Your task to perform on an android device: How do I get to the nearest Verizon Store? Image 0: 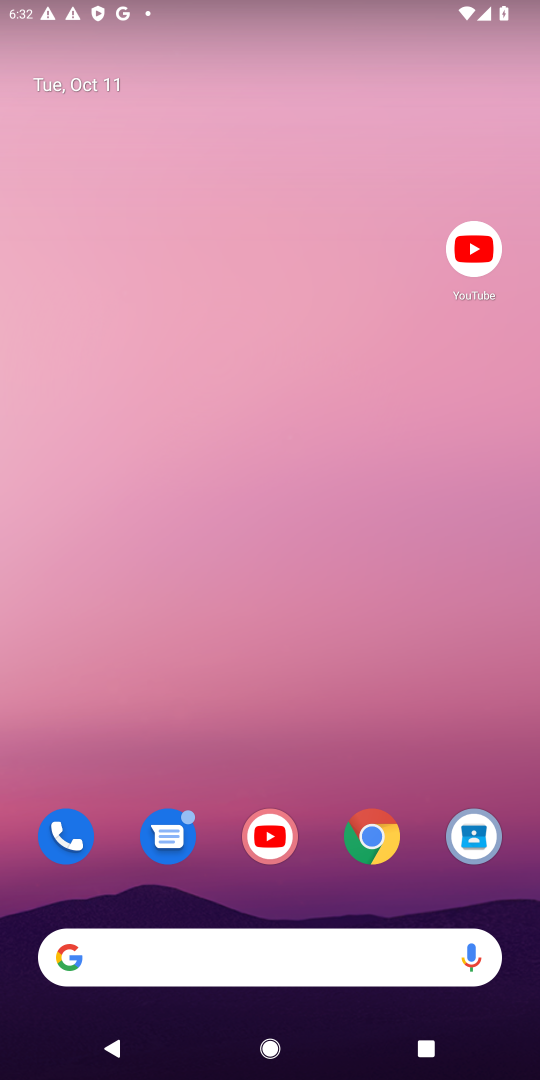
Step 0: click (374, 838)
Your task to perform on an android device: How do I get to the nearest Verizon Store? Image 1: 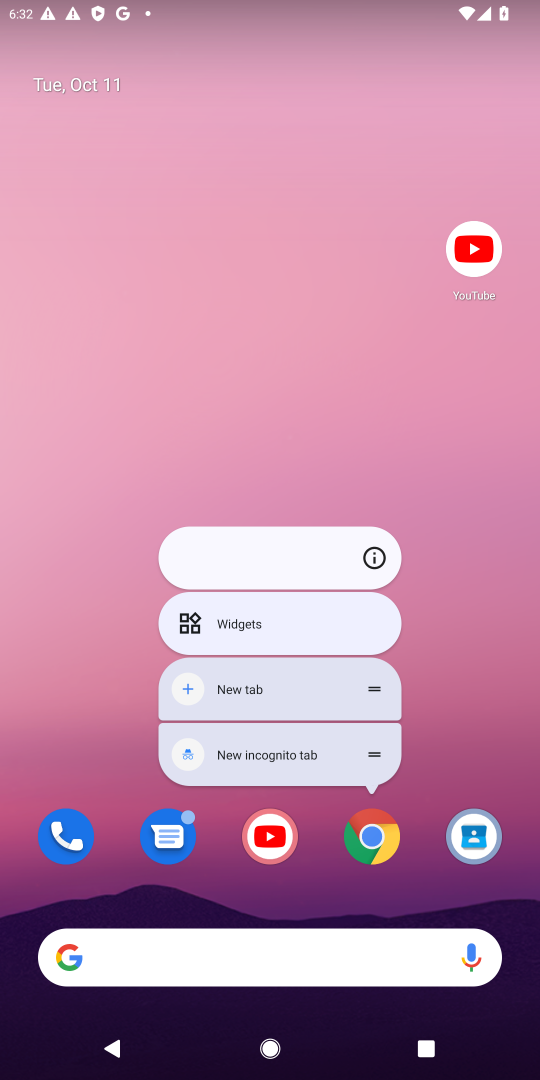
Step 1: click (369, 846)
Your task to perform on an android device: How do I get to the nearest Verizon Store? Image 2: 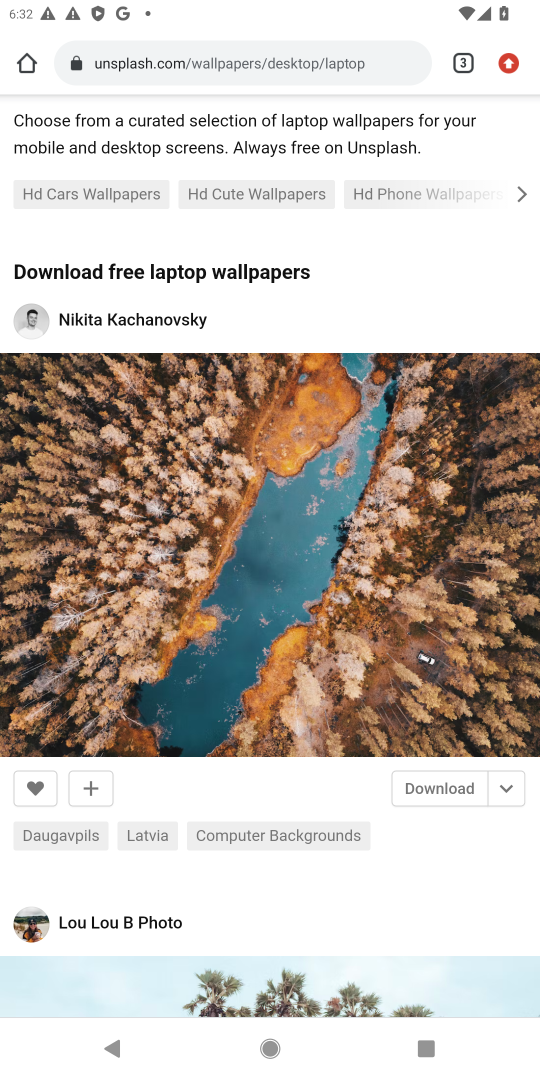
Step 2: click (330, 59)
Your task to perform on an android device: How do I get to the nearest Verizon Store? Image 3: 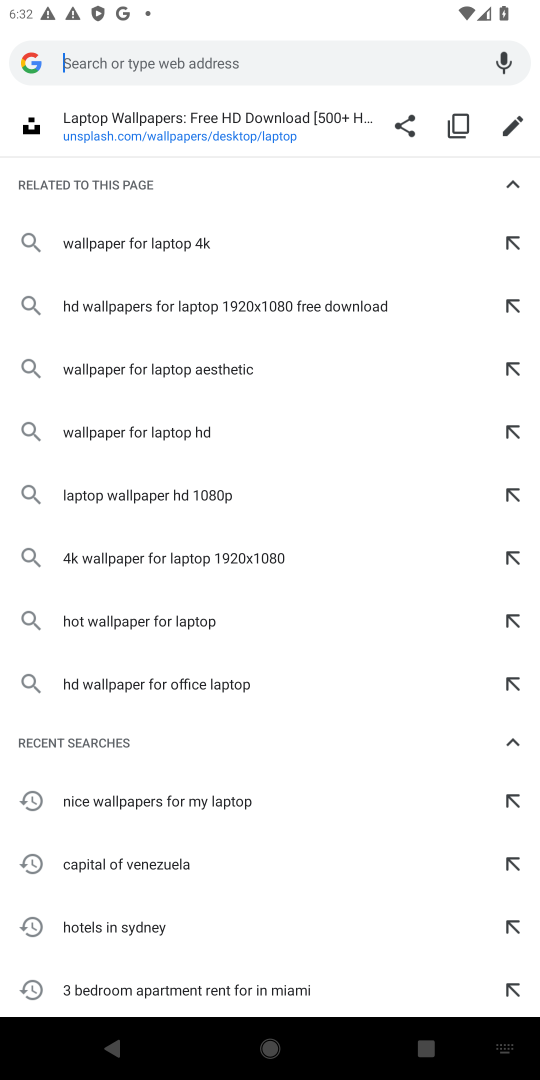
Step 3: type "nearest Verizon Store"
Your task to perform on an android device: How do I get to the nearest Verizon Store? Image 4: 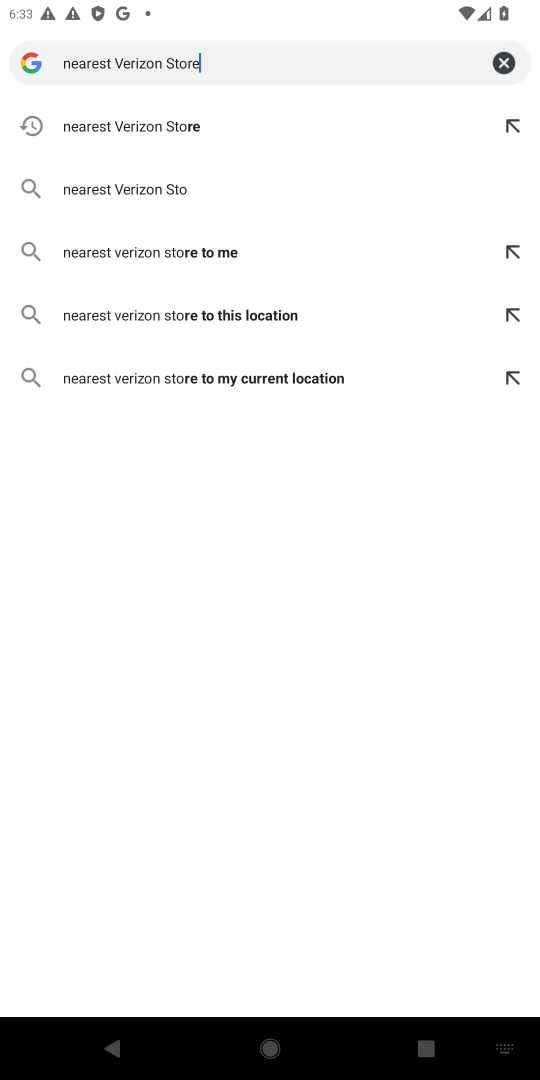
Step 4: press enter
Your task to perform on an android device: How do I get to the nearest Verizon Store? Image 5: 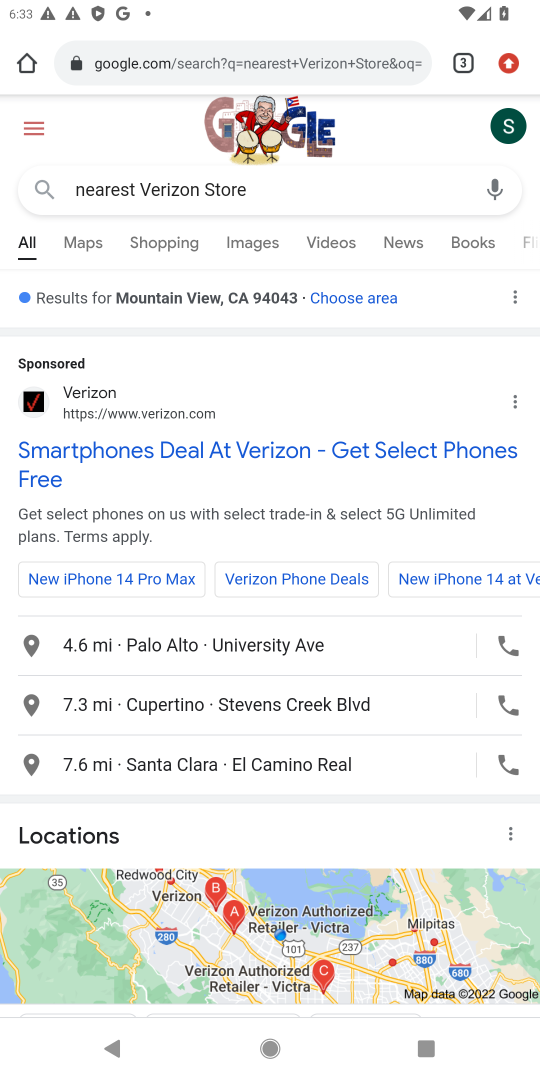
Step 5: drag from (189, 946) to (436, 291)
Your task to perform on an android device: How do I get to the nearest Verizon Store? Image 6: 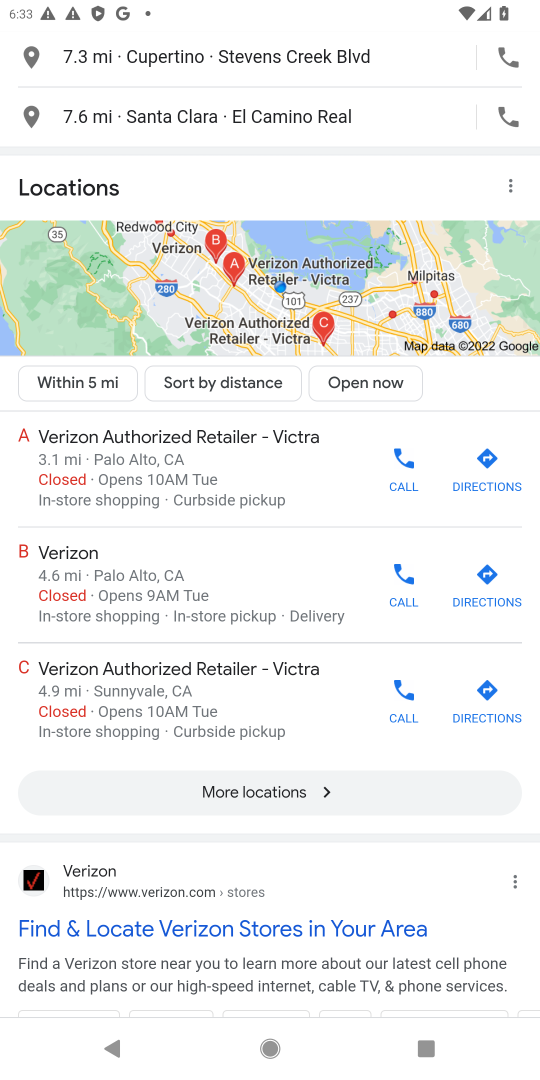
Step 6: click (281, 790)
Your task to perform on an android device: How do I get to the nearest Verizon Store? Image 7: 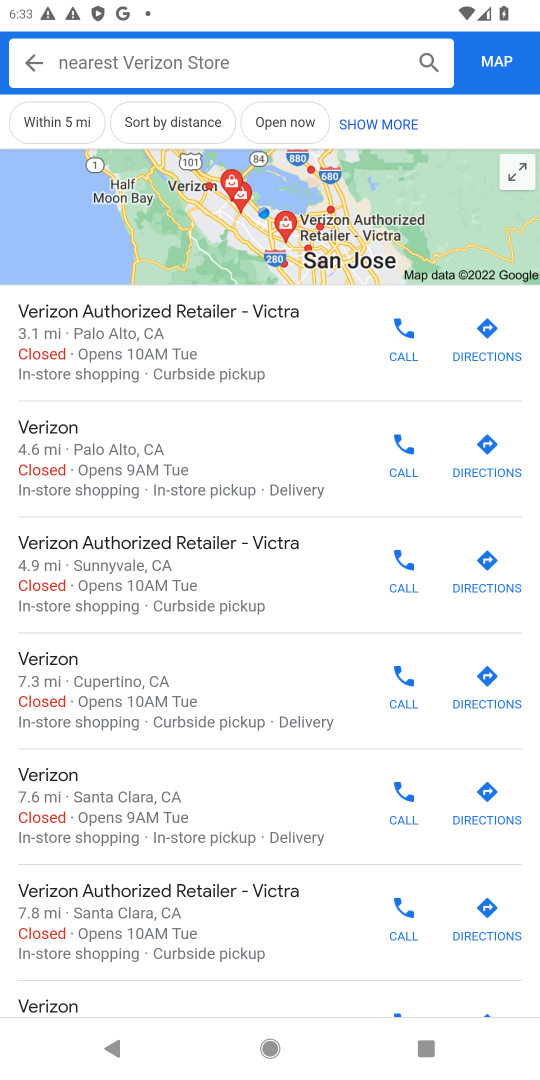
Step 7: task complete